Your task to perform on an android device: toggle data saver in the chrome app Image 0: 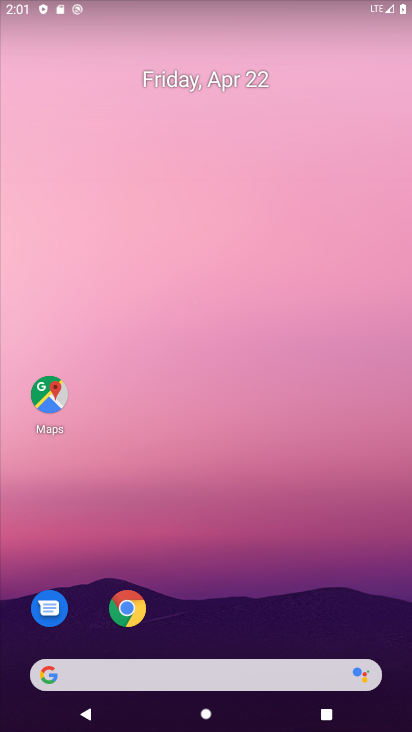
Step 0: drag from (256, 677) to (316, 180)
Your task to perform on an android device: toggle data saver in the chrome app Image 1: 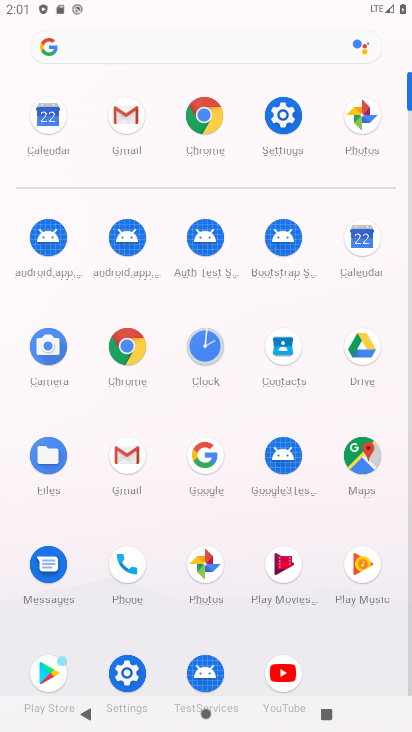
Step 1: click (130, 344)
Your task to perform on an android device: toggle data saver in the chrome app Image 2: 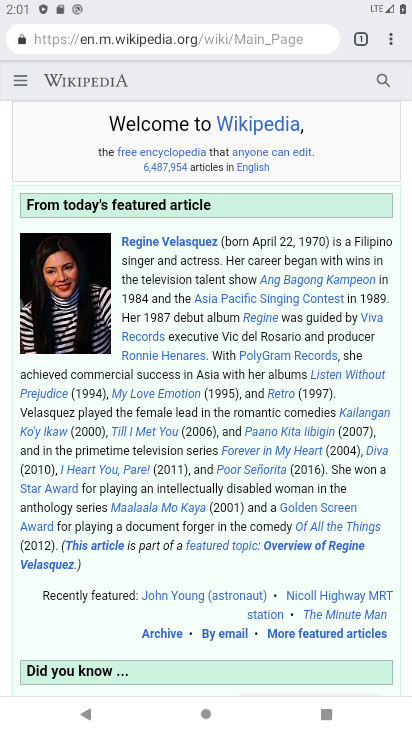
Step 2: click (393, 39)
Your task to perform on an android device: toggle data saver in the chrome app Image 3: 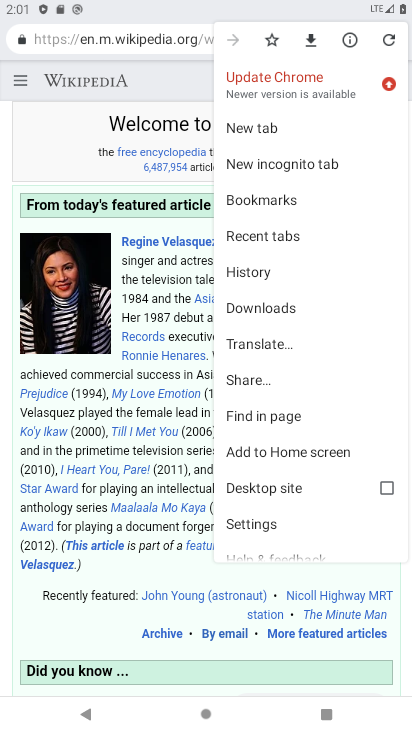
Step 3: click (257, 516)
Your task to perform on an android device: toggle data saver in the chrome app Image 4: 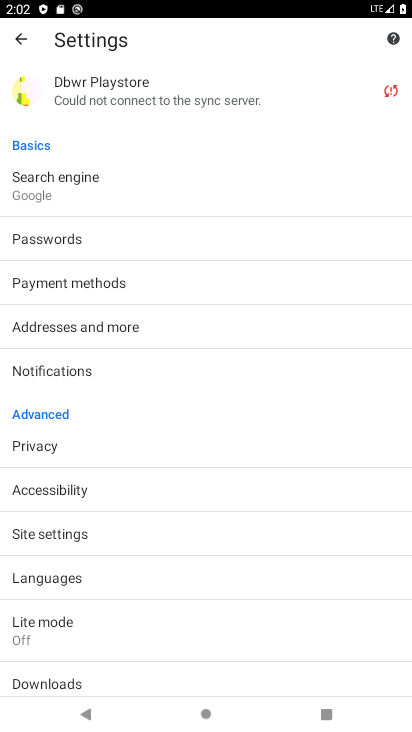
Step 4: click (74, 624)
Your task to perform on an android device: toggle data saver in the chrome app Image 5: 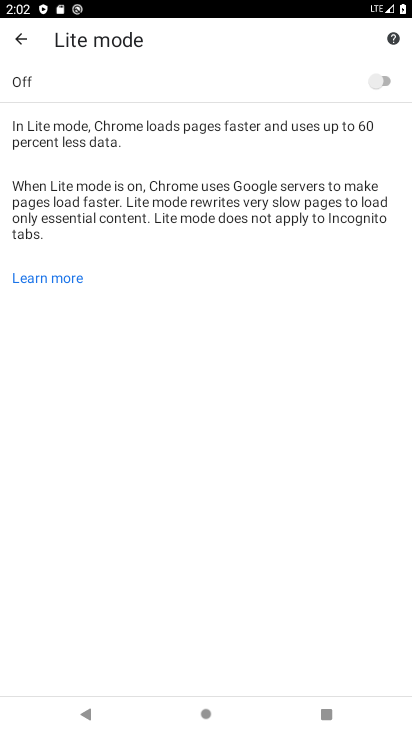
Step 5: task complete